Your task to perform on an android device: turn off notifications settings in the gmail app Image 0: 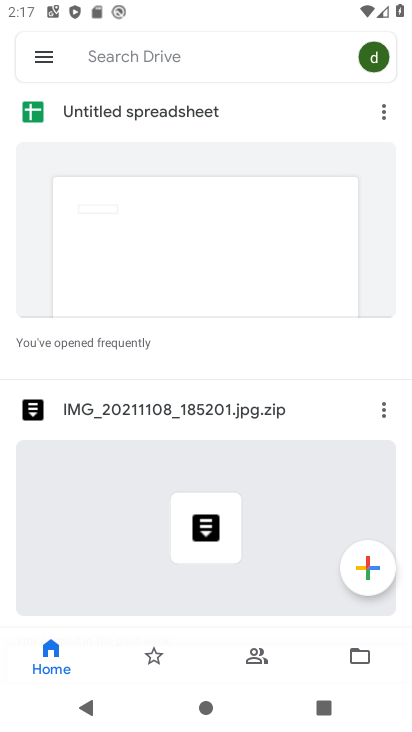
Step 0: press home button
Your task to perform on an android device: turn off notifications settings in the gmail app Image 1: 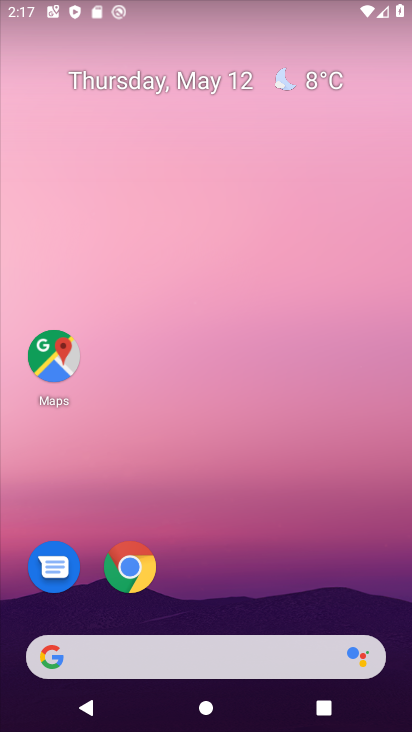
Step 1: drag from (209, 605) to (264, 52)
Your task to perform on an android device: turn off notifications settings in the gmail app Image 2: 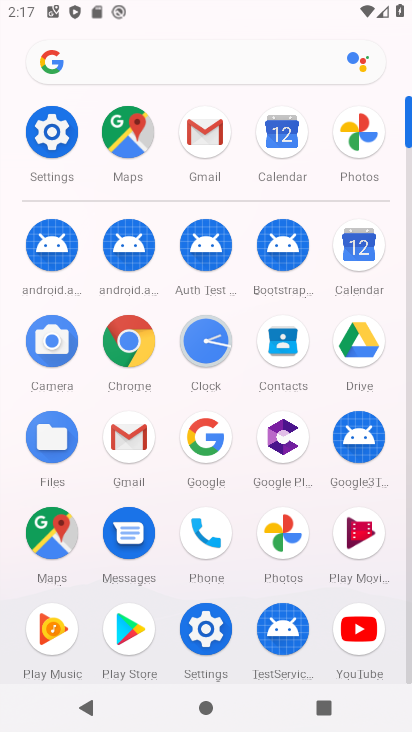
Step 2: click (204, 625)
Your task to perform on an android device: turn off notifications settings in the gmail app Image 3: 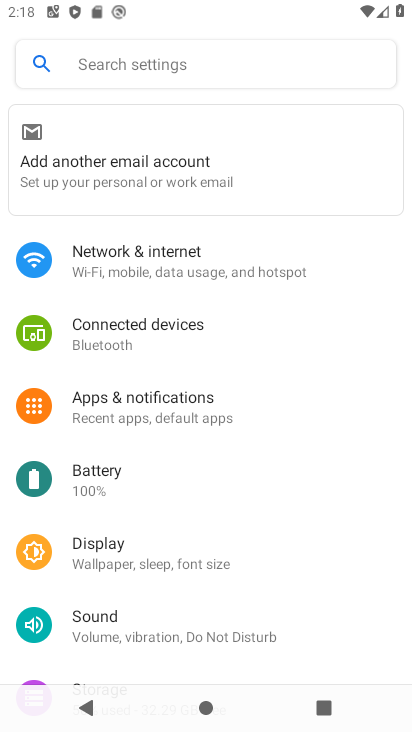
Step 3: drag from (176, 616) to (197, 360)
Your task to perform on an android device: turn off notifications settings in the gmail app Image 4: 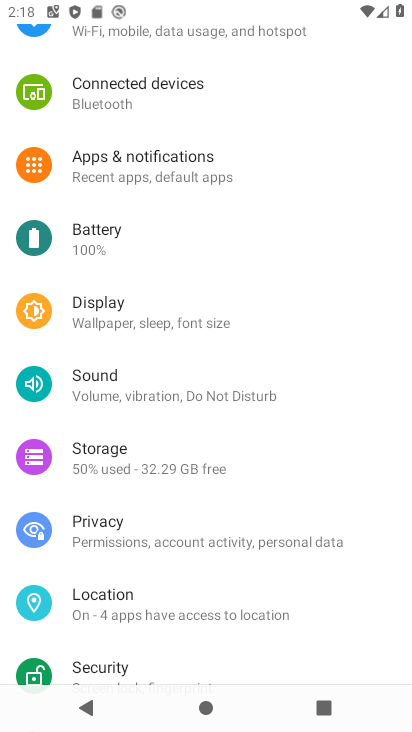
Step 4: press home button
Your task to perform on an android device: turn off notifications settings in the gmail app Image 5: 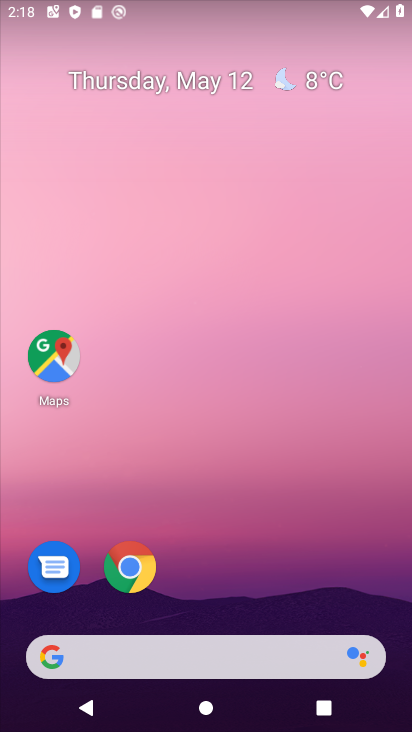
Step 5: drag from (229, 610) to (237, 40)
Your task to perform on an android device: turn off notifications settings in the gmail app Image 6: 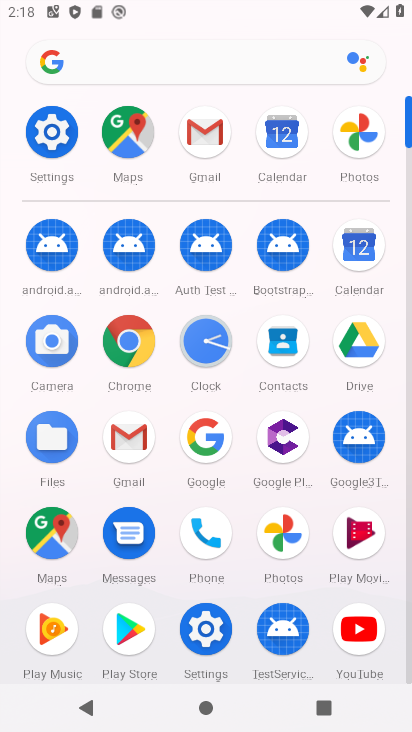
Step 6: click (199, 137)
Your task to perform on an android device: turn off notifications settings in the gmail app Image 7: 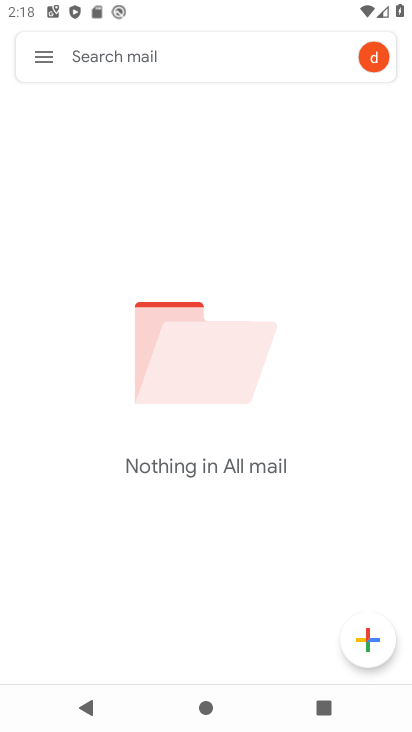
Step 7: click (32, 56)
Your task to perform on an android device: turn off notifications settings in the gmail app Image 8: 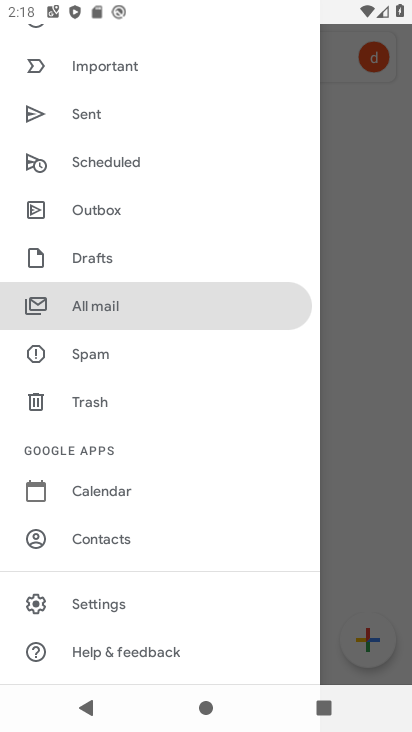
Step 8: click (124, 600)
Your task to perform on an android device: turn off notifications settings in the gmail app Image 9: 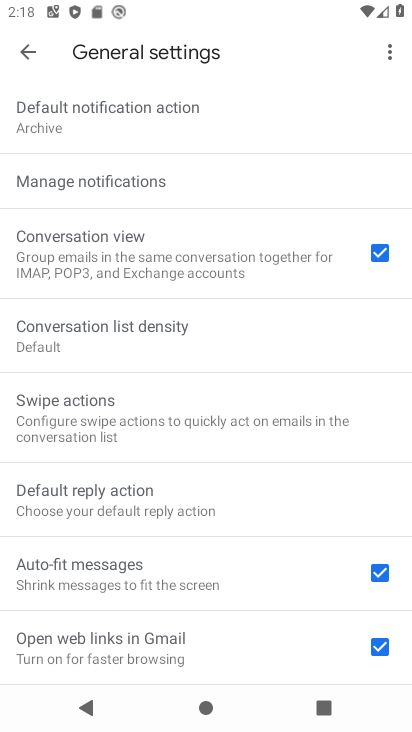
Step 9: click (109, 191)
Your task to perform on an android device: turn off notifications settings in the gmail app Image 10: 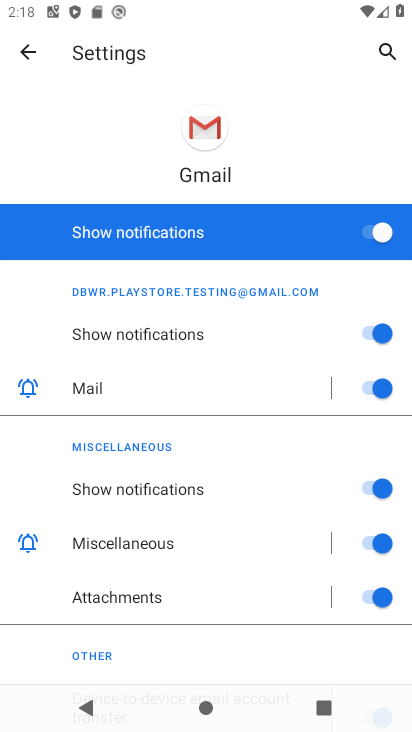
Step 10: click (366, 241)
Your task to perform on an android device: turn off notifications settings in the gmail app Image 11: 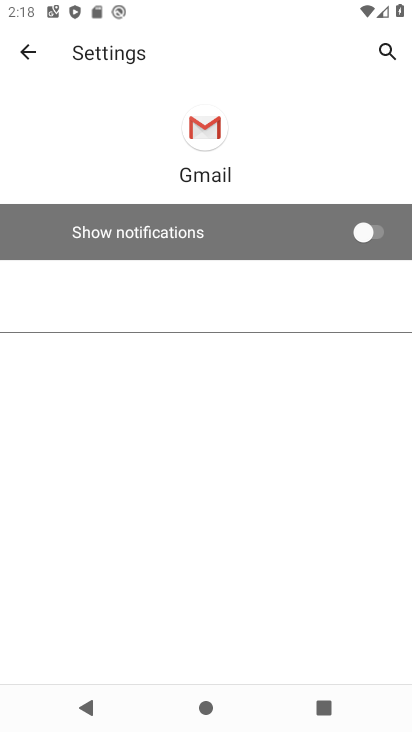
Step 11: task complete